Your task to perform on an android device: show emergency info Image 0: 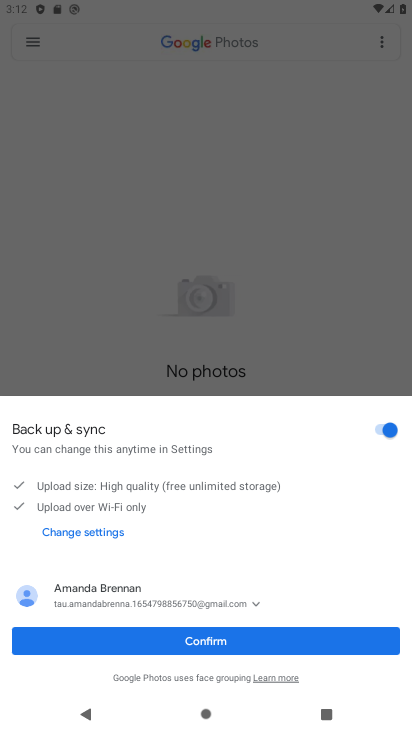
Step 0: press home button
Your task to perform on an android device: show emergency info Image 1: 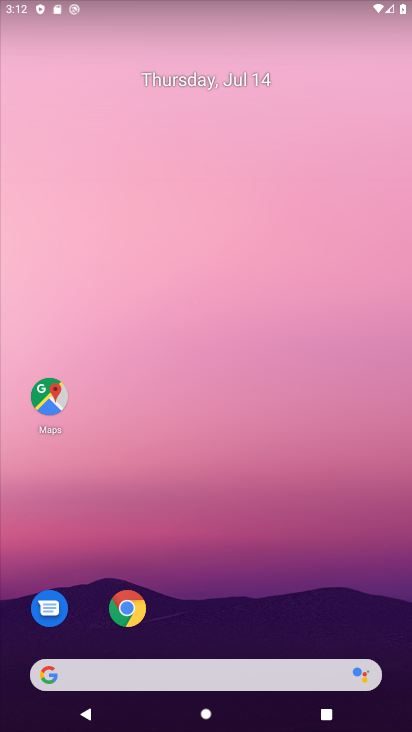
Step 1: drag from (170, 654) to (251, 251)
Your task to perform on an android device: show emergency info Image 2: 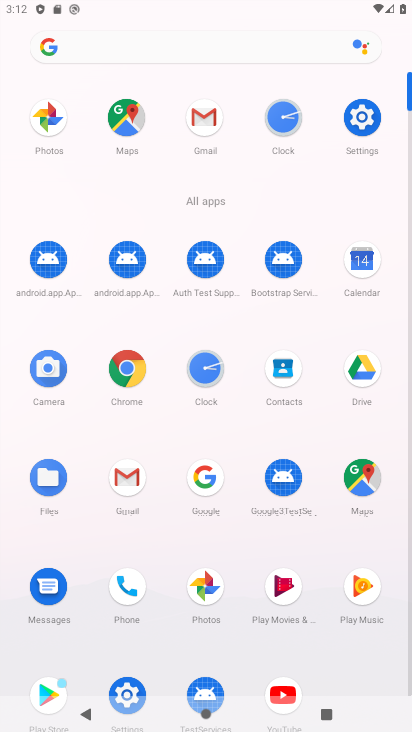
Step 2: click (115, 682)
Your task to perform on an android device: show emergency info Image 3: 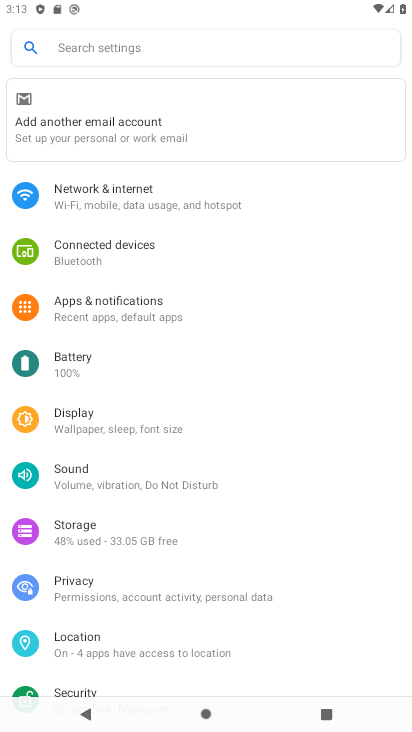
Step 3: drag from (91, 629) to (174, 246)
Your task to perform on an android device: show emergency info Image 4: 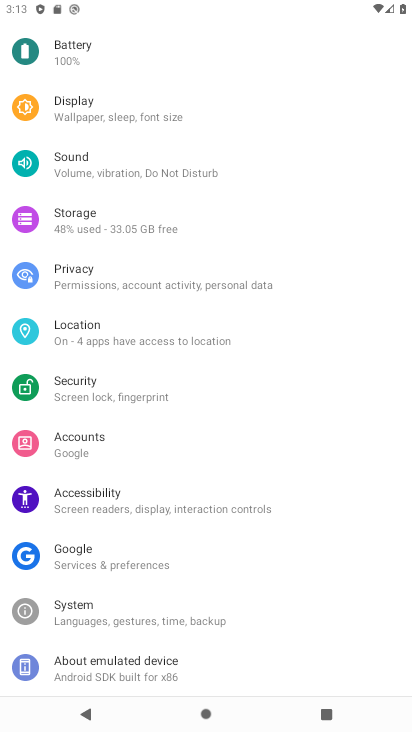
Step 4: drag from (152, 646) to (225, 325)
Your task to perform on an android device: show emergency info Image 5: 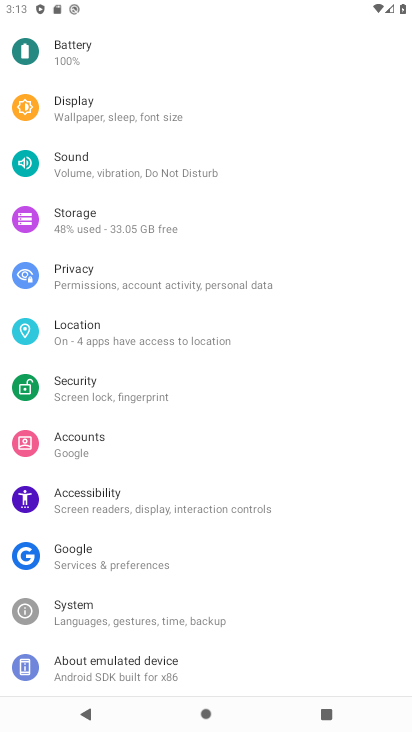
Step 5: click (130, 679)
Your task to perform on an android device: show emergency info Image 6: 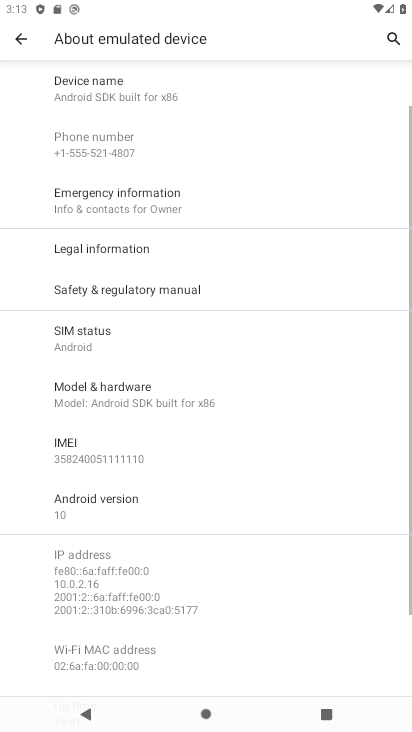
Step 6: click (139, 209)
Your task to perform on an android device: show emergency info Image 7: 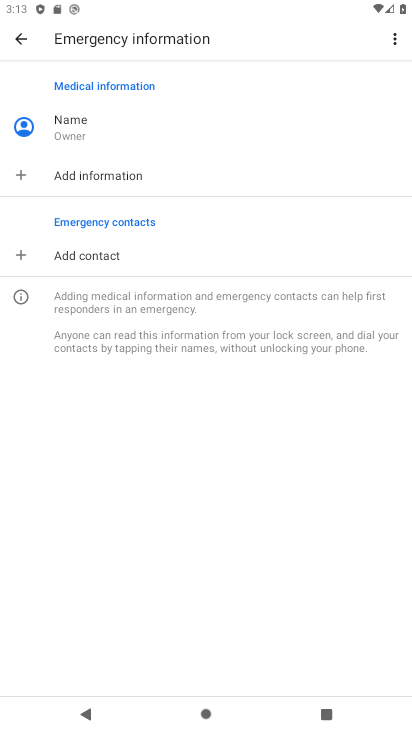
Step 7: task complete